Your task to perform on an android device: check the backup settings in the google photos Image 0: 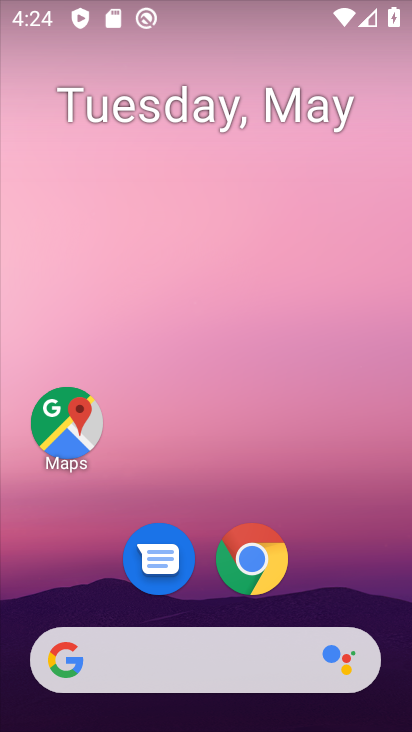
Step 0: drag from (71, 632) to (234, 98)
Your task to perform on an android device: check the backup settings in the google photos Image 1: 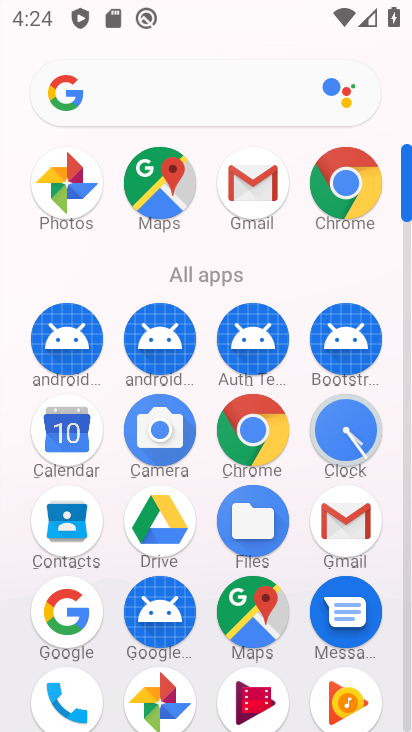
Step 1: click (176, 699)
Your task to perform on an android device: check the backup settings in the google photos Image 2: 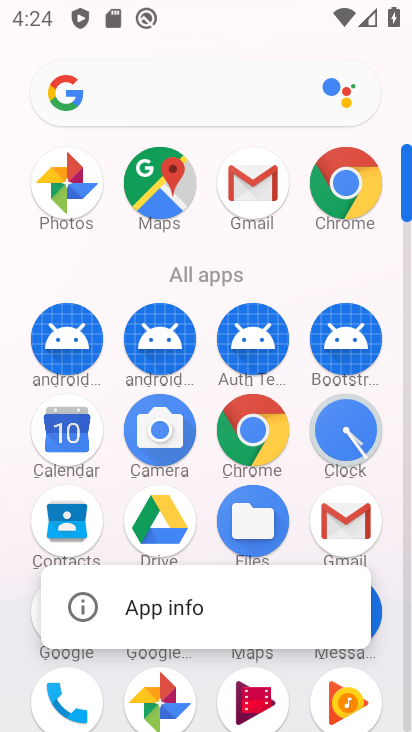
Step 2: click (173, 699)
Your task to perform on an android device: check the backup settings in the google photos Image 3: 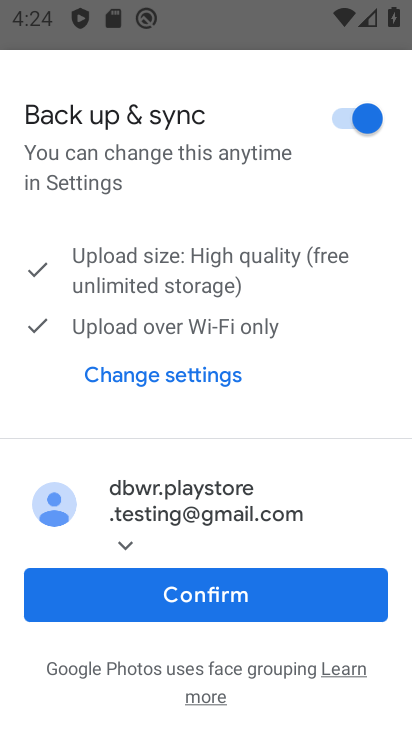
Step 3: click (219, 596)
Your task to perform on an android device: check the backup settings in the google photos Image 4: 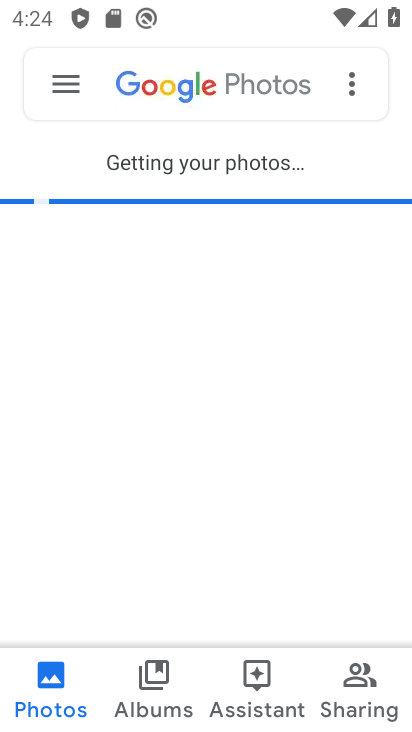
Step 4: click (39, 60)
Your task to perform on an android device: check the backup settings in the google photos Image 5: 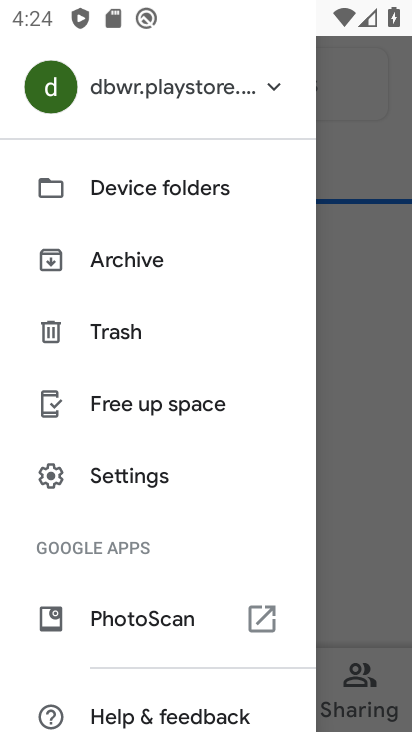
Step 5: click (151, 494)
Your task to perform on an android device: check the backup settings in the google photos Image 6: 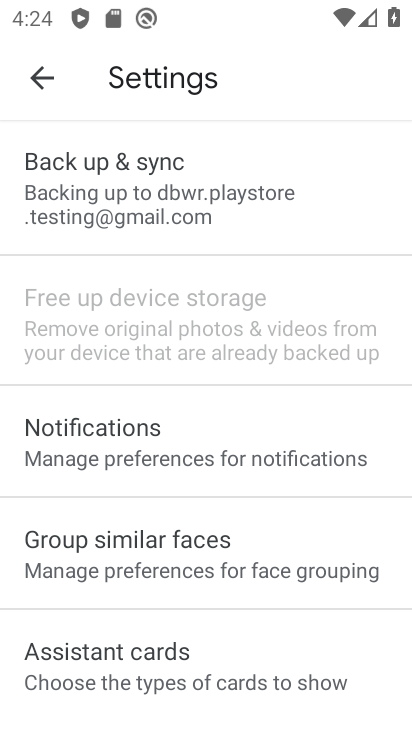
Step 6: click (149, 172)
Your task to perform on an android device: check the backup settings in the google photos Image 7: 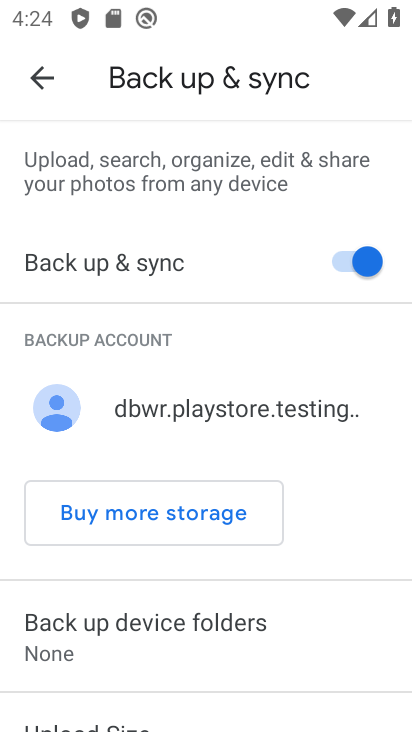
Step 7: task complete